Your task to perform on an android device: Go to network settings Image 0: 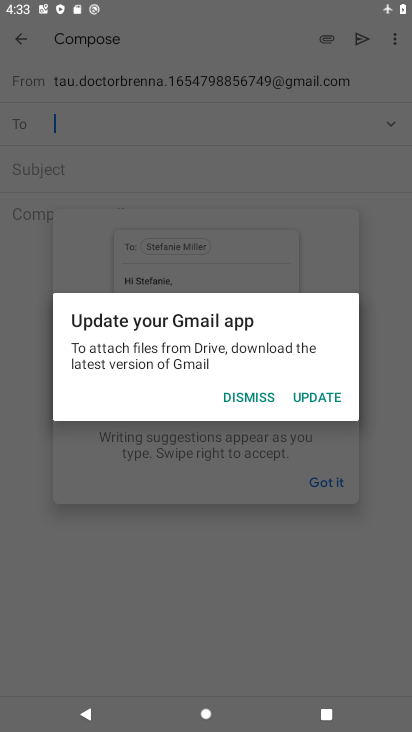
Step 0: press home button
Your task to perform on an android device: Go to network settings Image 1: 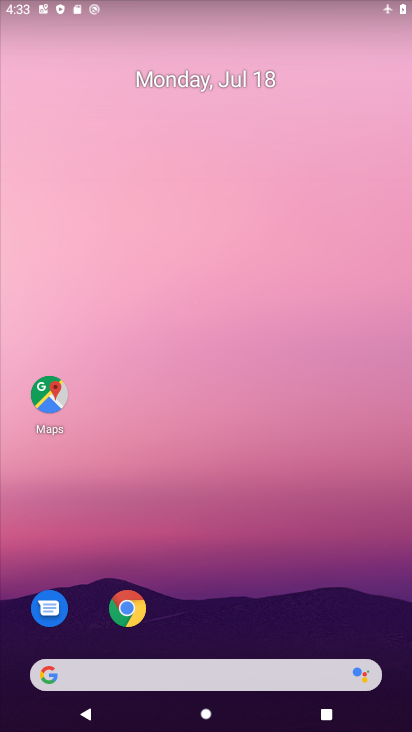
Step 1: drag from (197, 573) to (216, 0)
Your task to perform on an android device: Go to network settings Image 2: 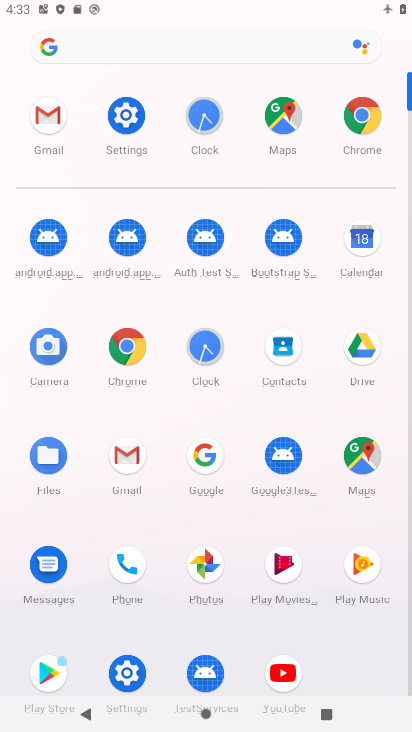
Step 2: click (127, 121)
Your task to perform on an android device: Go to network settings Image 3: 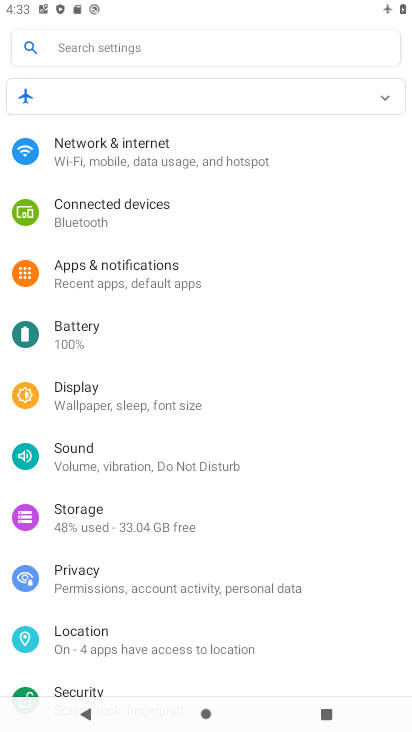
Step 3: click (147, 156)
Your task to perform on an android device: Go to network settings Image 4: 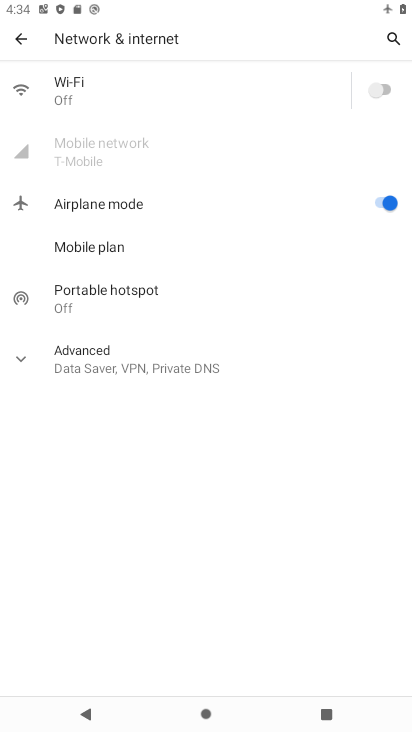
Step 4: click (103, 353)
Your task to perform on an android device: Go to network settings Image 5: 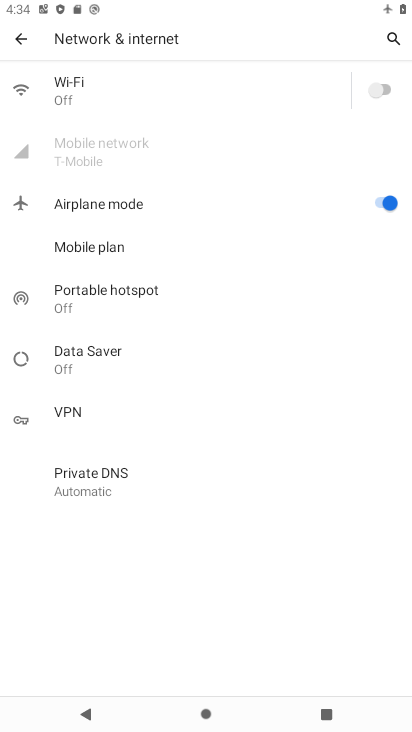
Step 5: task complete